Your task to perform on an android device: star an email in the gmail app Image 0: 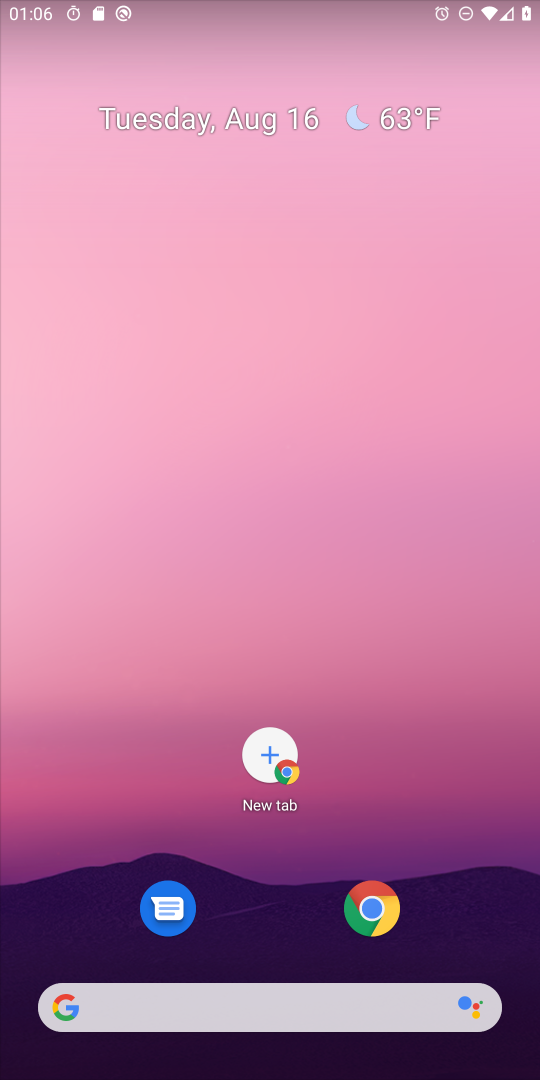
Step 0: drag from (259, 900) to (240, 59)
Your task to perform on an android device: star an email in the gmail app Image 1: 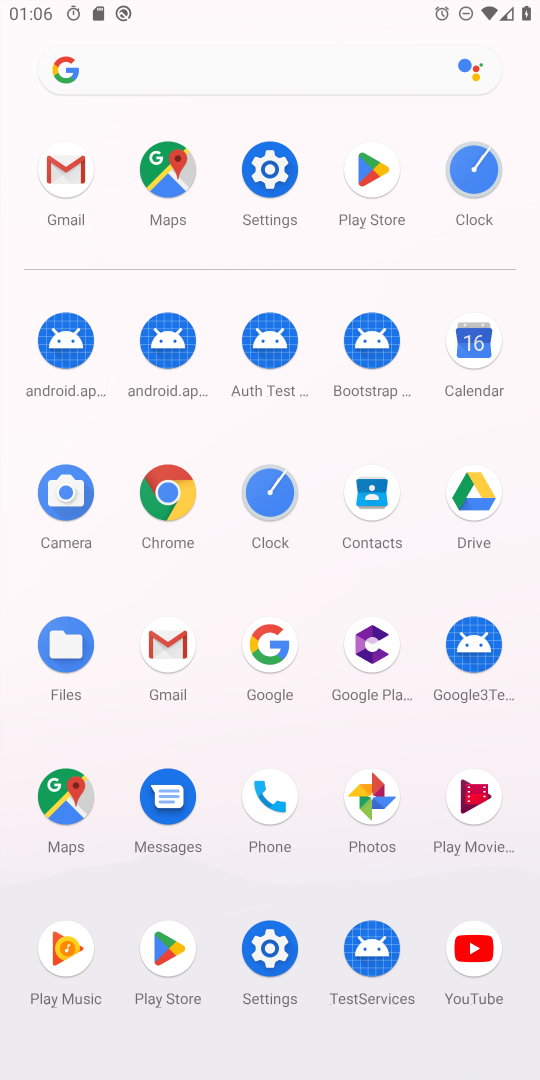
Step 1: click (84, 192)
Your task to perform on an android device: star an email in the gmail app Image 2: 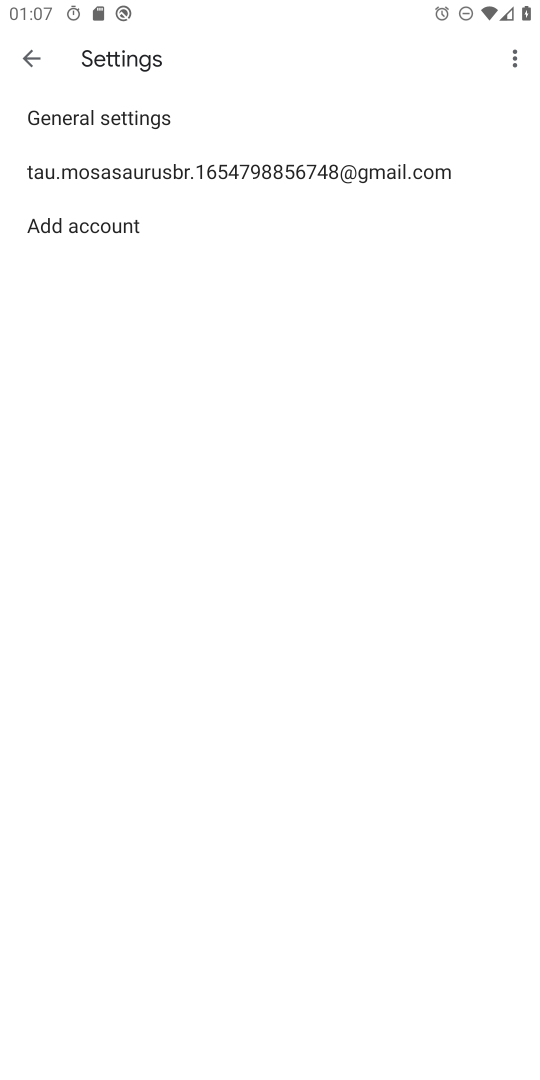
Step 2: click (39, 63)
Your task to perform on an android device: star an email in the gmail app Image 3: 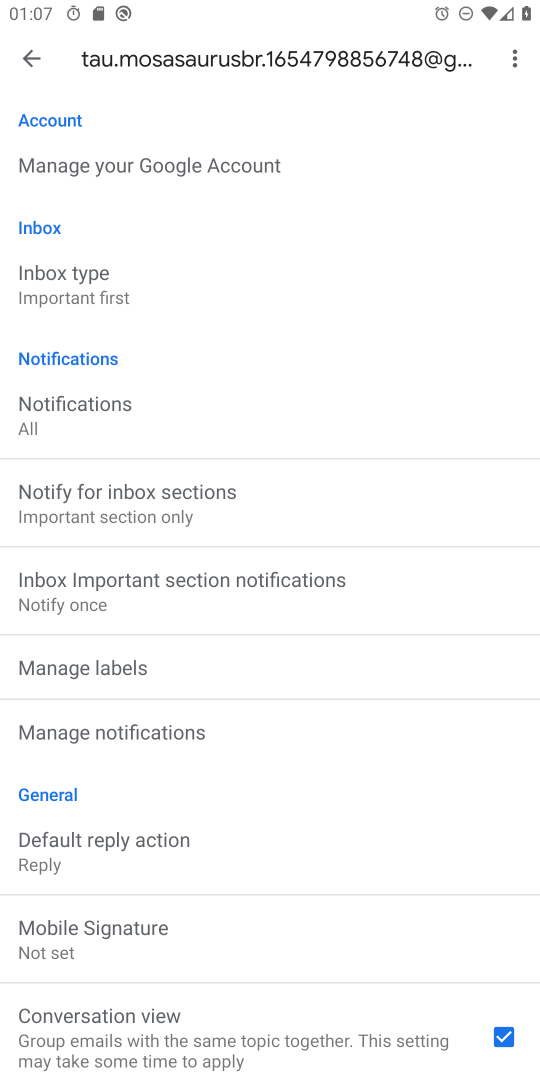
Step 3: click (39, 63)
Your task to perform on an android device: star an email in the gmail app Image 4: 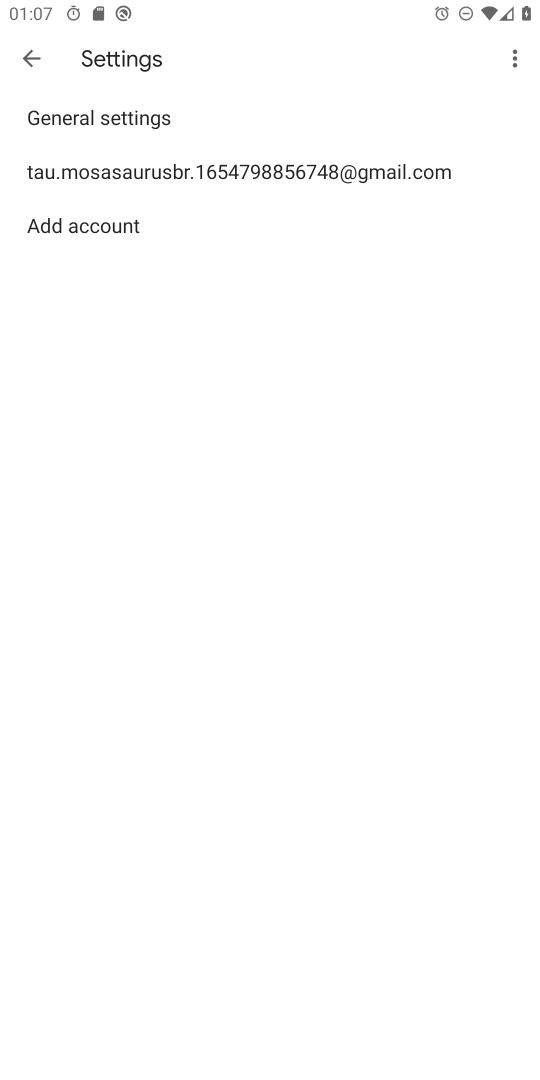
Step 4: click (28, 67)
Your task to perform on an android device: star an email in the gmail app Image 5: 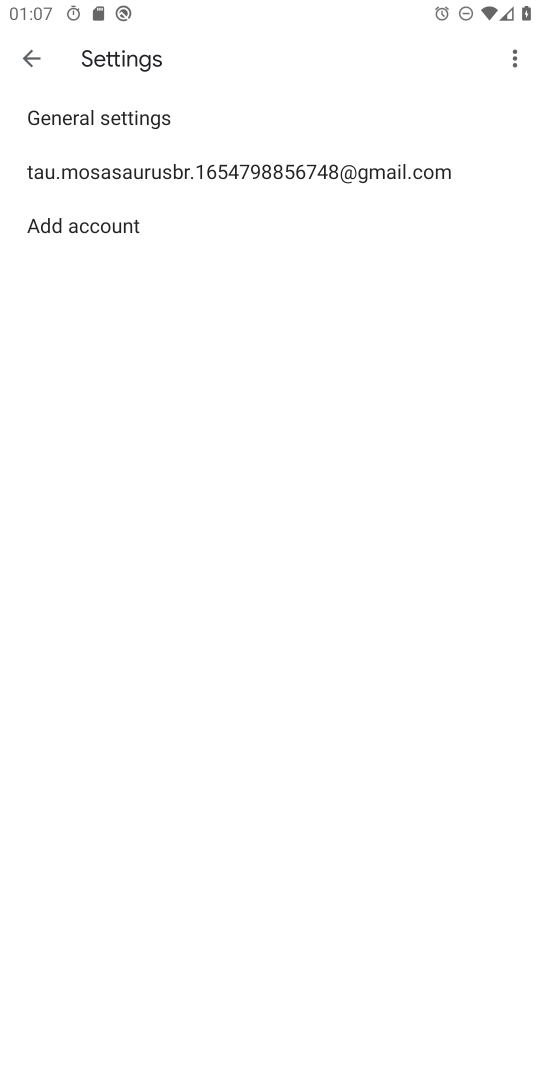
Step 5: click (28, 67)
Your task to perform on an android device: star an email in the gmail app Image 6: 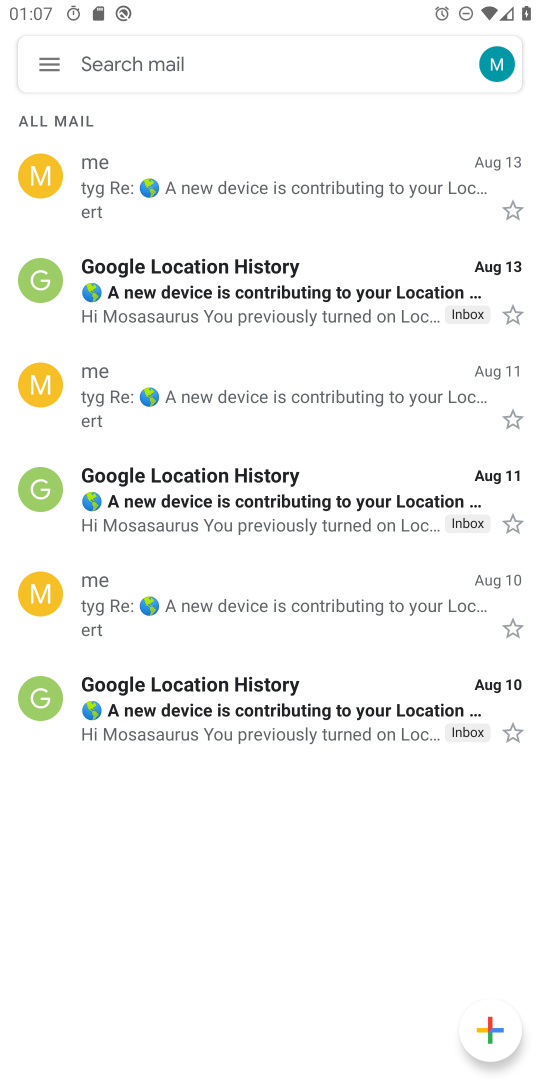
Step 6: click (519, 725)
Your task to perform on an android device: star an email in the gmail app Image 7: 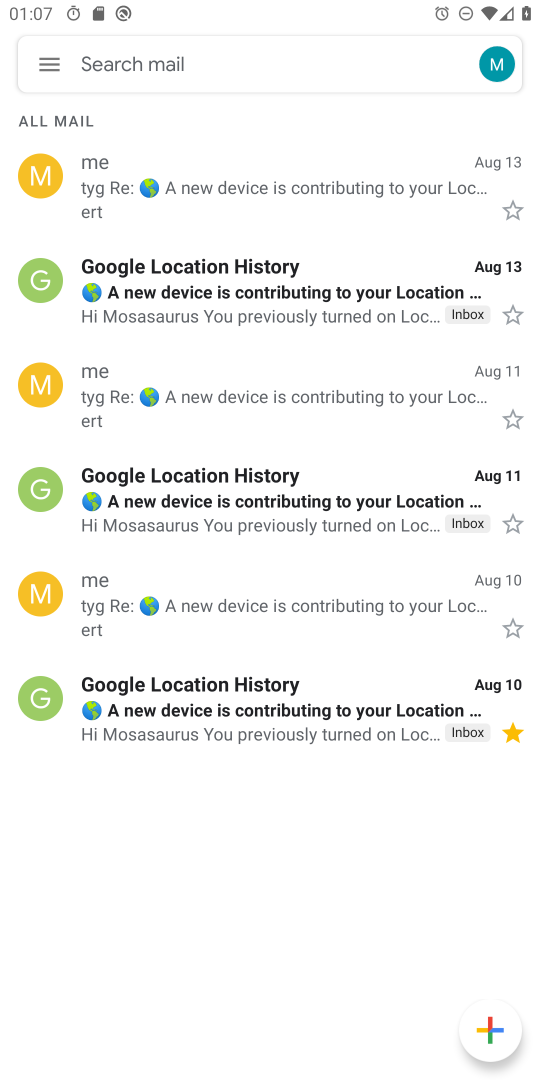
Step 7: task complete